Your task to perform on an android device: uninstall "Google Chat" Image 0: 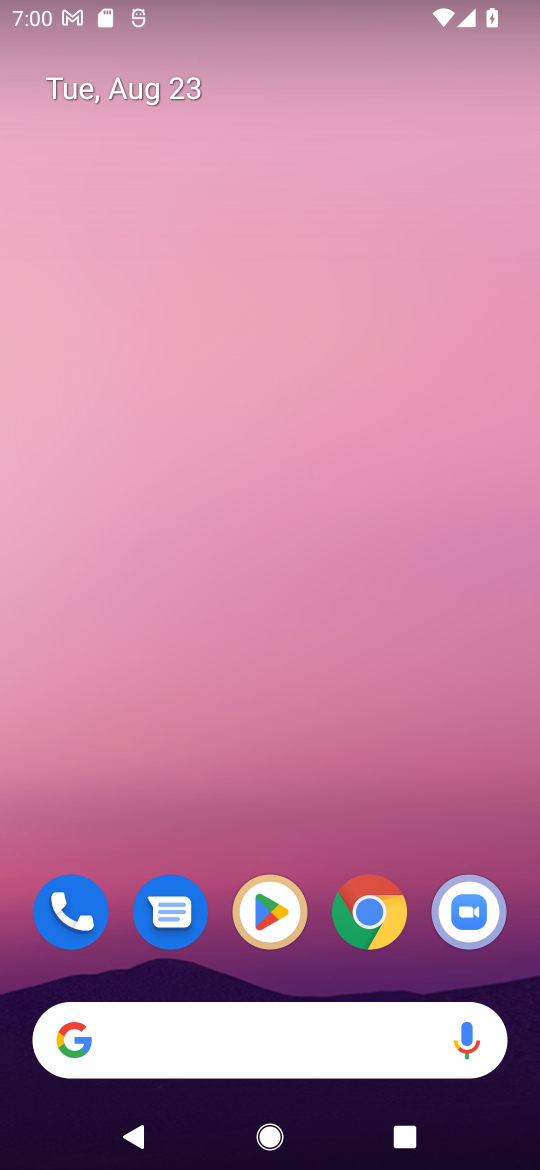
Step 0: click (276, 910)
Your task to perform on an android device: uninstall "Google Chat" Image 1: 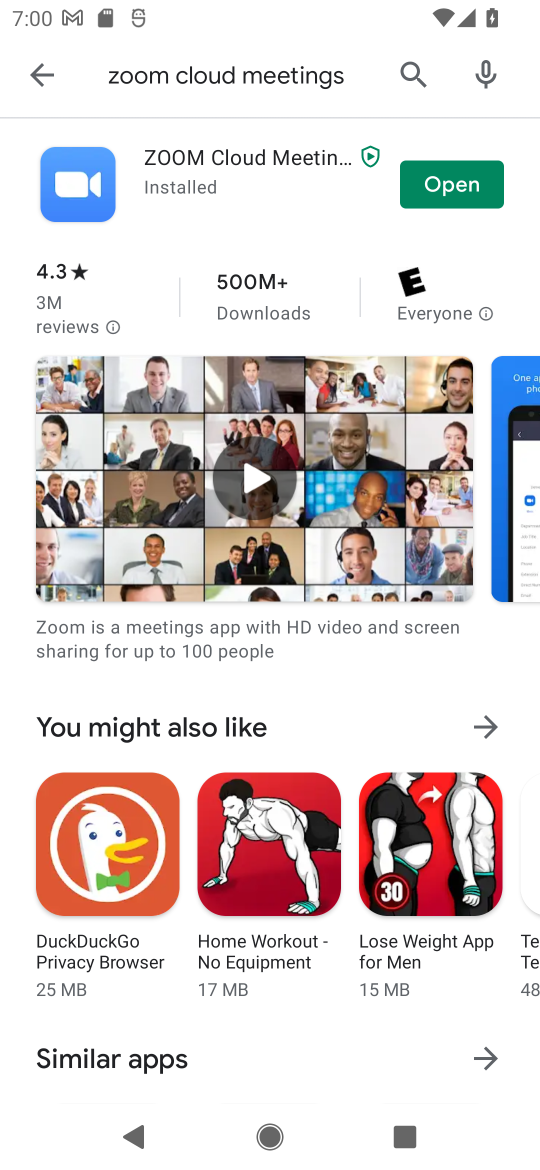
Step 1: click (410, 62)
Your task to perform on an android device: uninstall "Google Chat" Image 2: 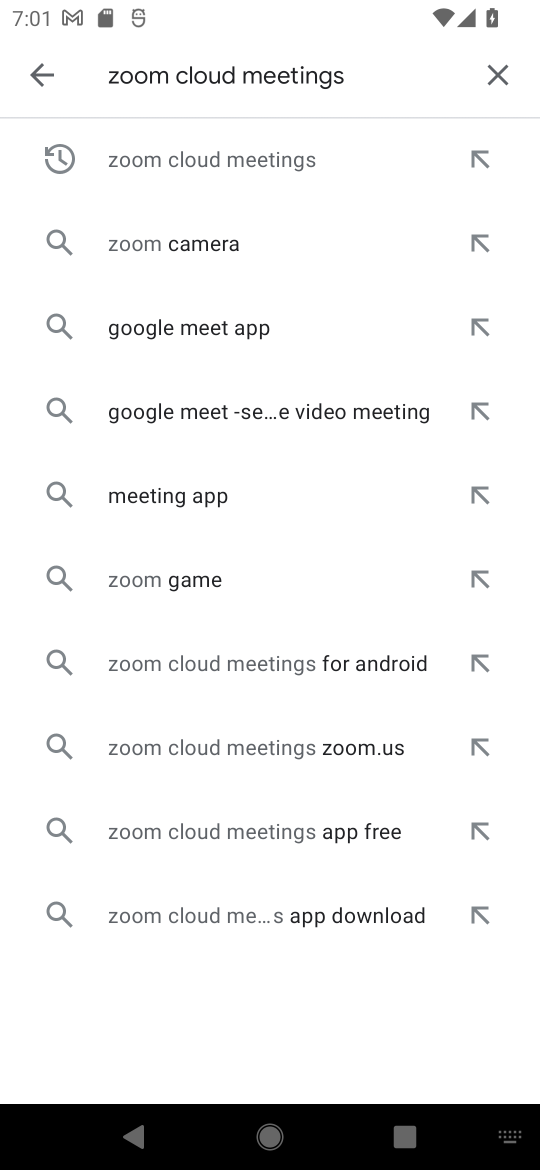
Step 2: click (494, 75)
Your task to perform on an android device: uninstall "Google Chat" Image 3: 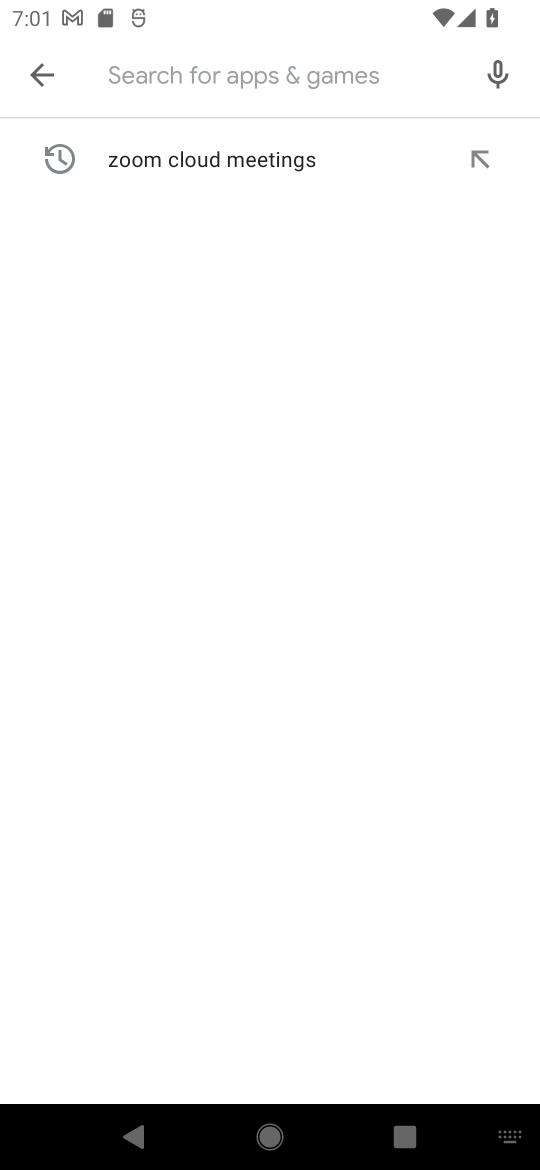
Step 3: type "Google Chat"
Your task to perform on an android device: uninstall "Google Chat" Image 4: 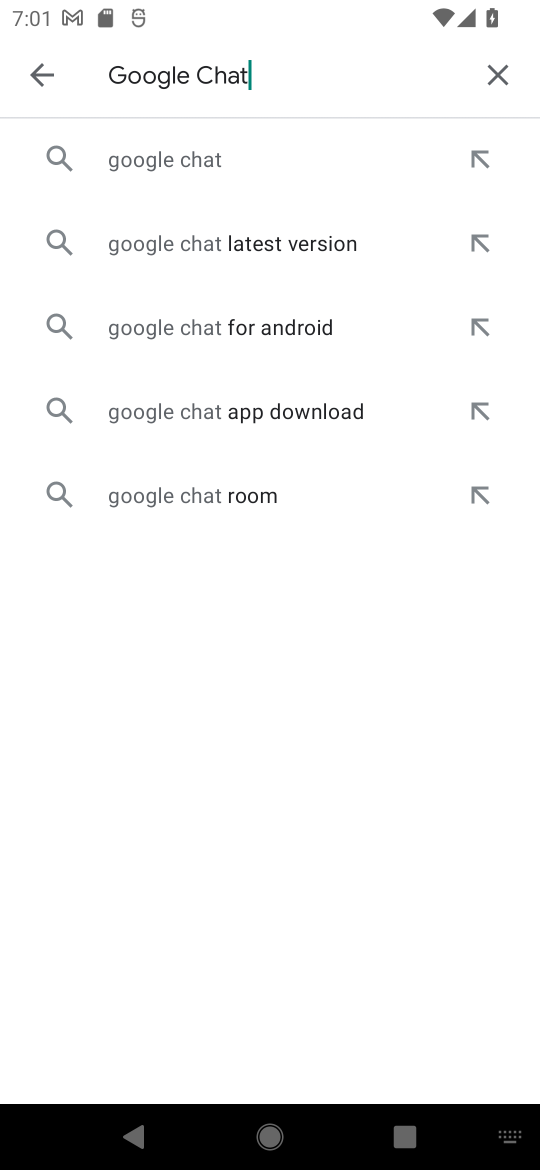
Step 4: click (180, 156)
Your task to perform on an android device: uninstall "Google Chat" Image 5: 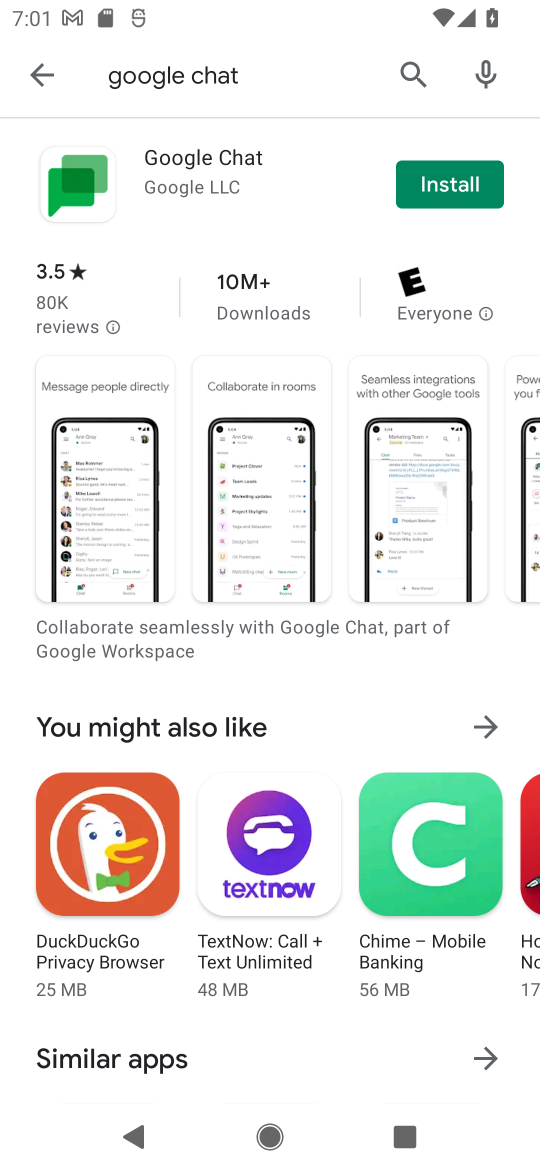
Step 5: click (454, 185)
Your task to perform on an android device: uninstall "Google Chat" Image 6: 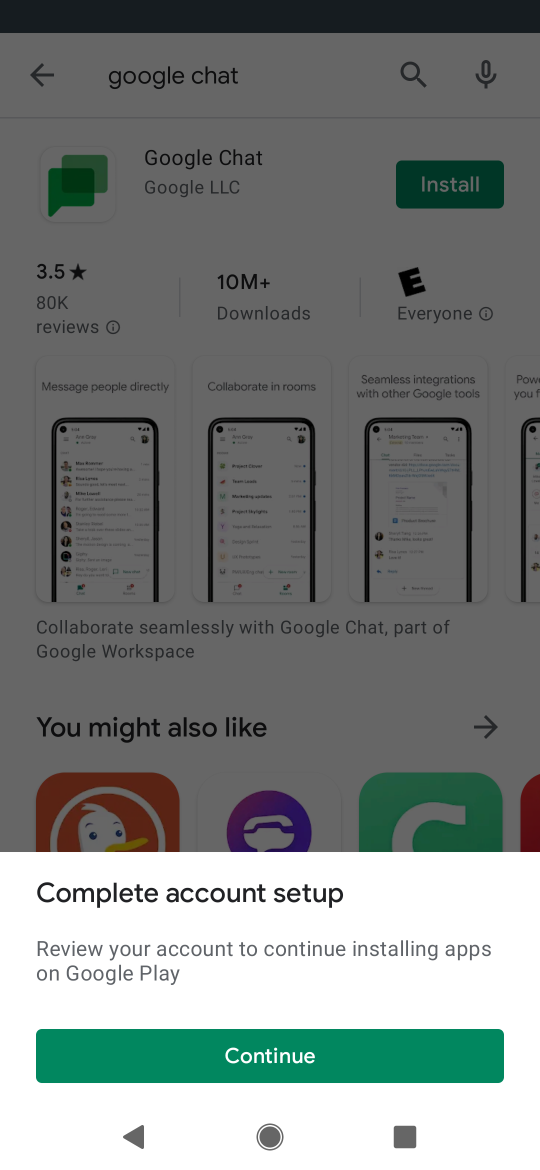
Step 6: click (279, 1063)
Your task to perform on an android device: uninstall "Google Chat" Image 7: 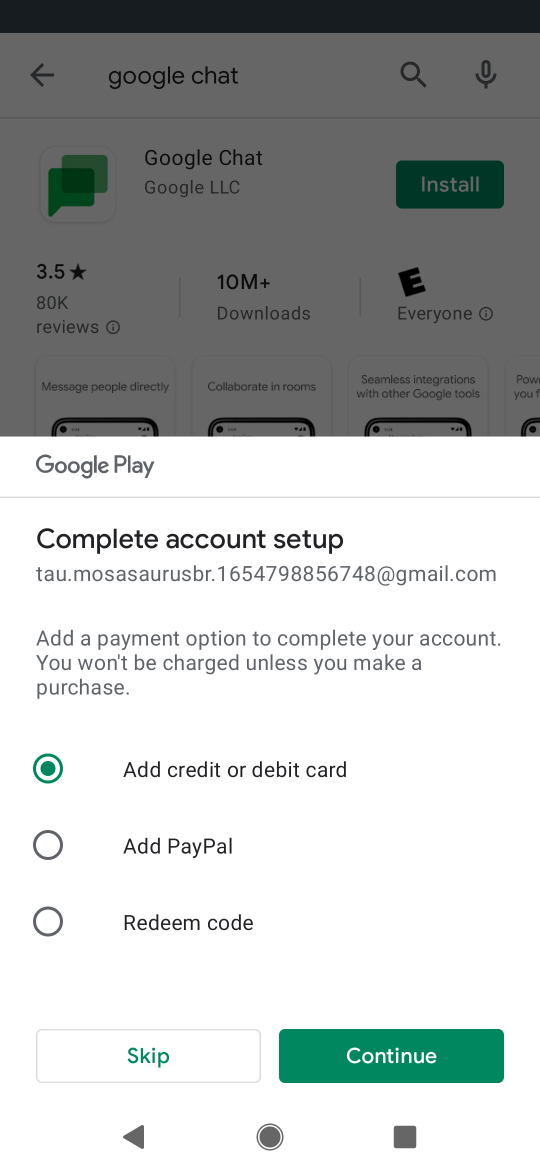
Step 7: click (325, 214)
Your task to perform on an android device: uninstall "Google Chat" Image 8: 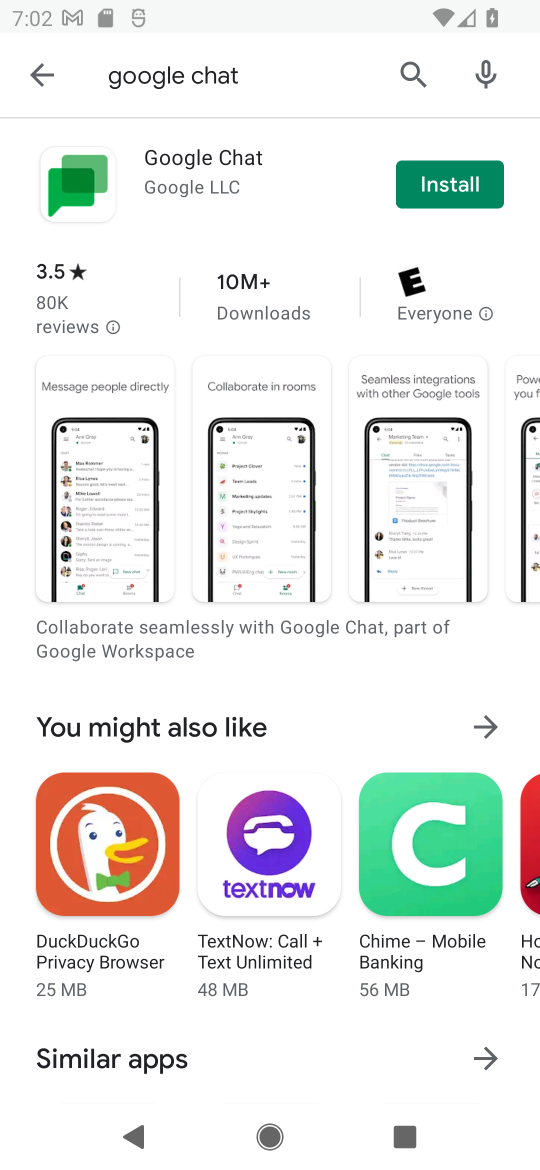
Step 8: task complete